Your task to perform on an android device: remove spam from my inbox in the gmail app Image 0: 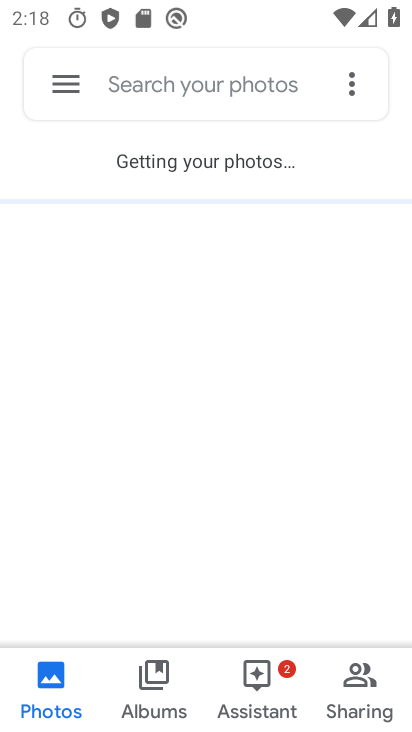
Step 0: press home button
Your task to perform on an android device: remove spam from my inbox in the gmail app Image 1: 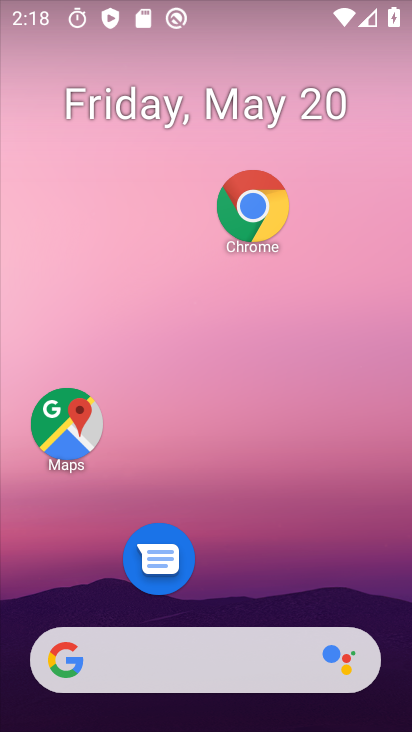
Step 1: drag from (194, 608) to (116, 82)
Your task to perform on an android device: remove spam from my inbox in the gmail app Image 2: 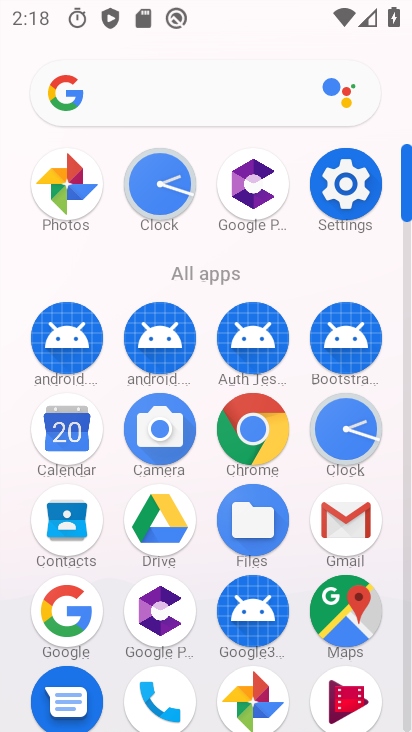
Step 2: click (352, 504)
Your task to perform on an android device: remove spam from my inbox in the gmail app Image 3: 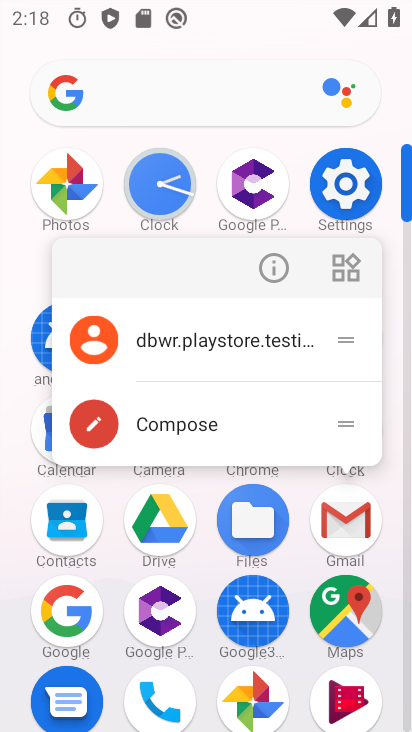
Step 3: click (362, 522)
Your task to perform on an android device: remove spam from my inbox in the gmail app Image 4: 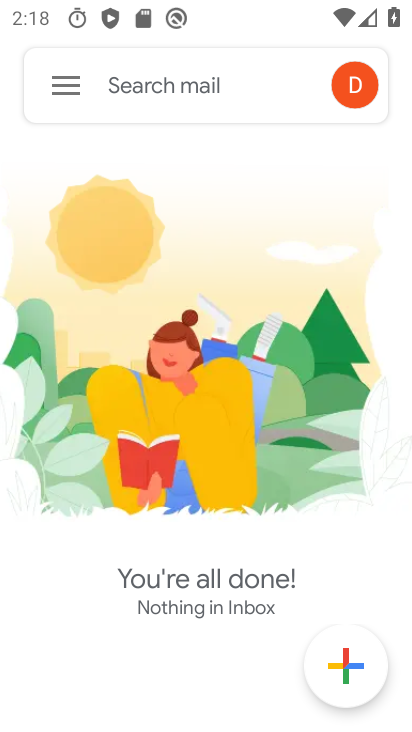
Step 4: click (70, 81)
Your task to perform on an android device: remove spam from my inbox in the gmail app Image 5: 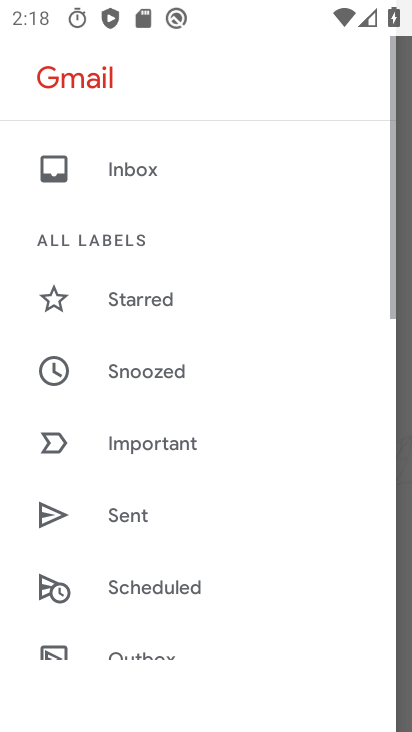
Step 5: drag from (160, 584) to (154, 175)
Your task to perform on an android device: remove spam from my inbox in the gmail app Image 6: 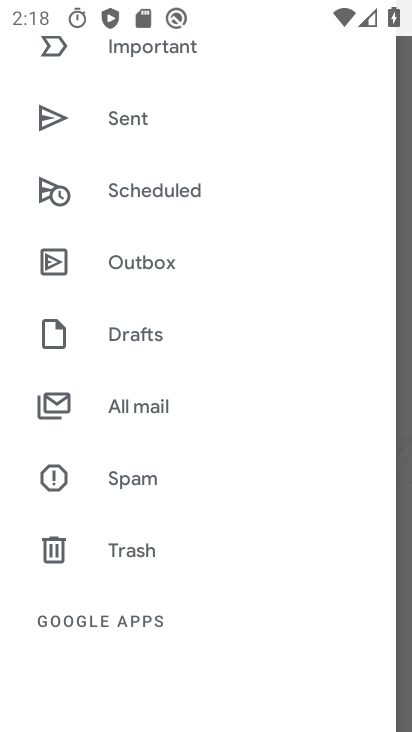
Step 6: click (143, 511)
Your task to perform on an android device: remove spam from my inbox in the gmail app Image 7: 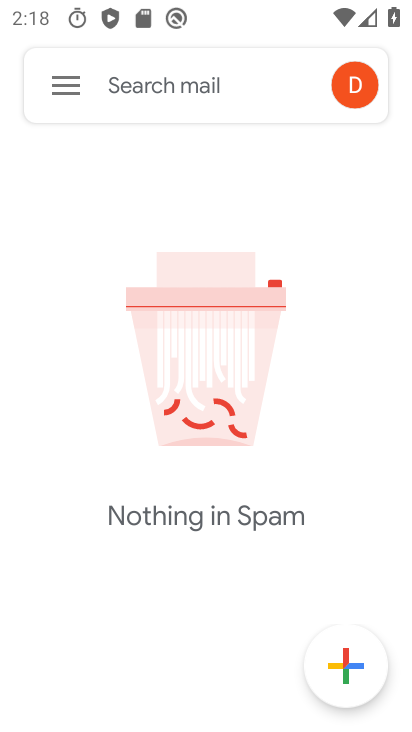
Step 7: task complete